Your task to perform on an android device: star an email in the gmail app Image 0: 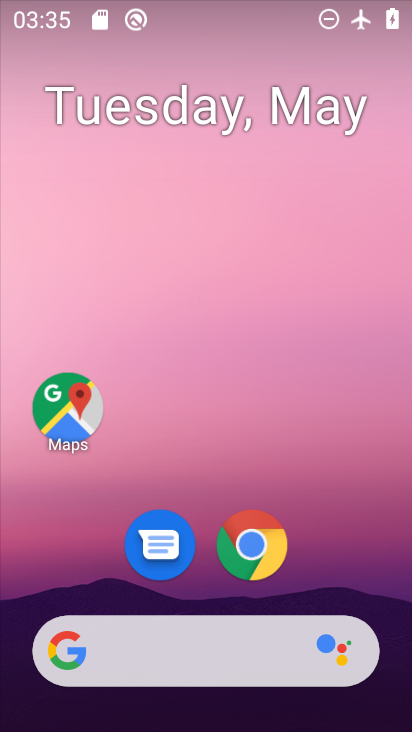
Step 0: drag from (395, 643) to (298, 38)
Your task to perform on an android device: star an email in the gmail app Image 1: 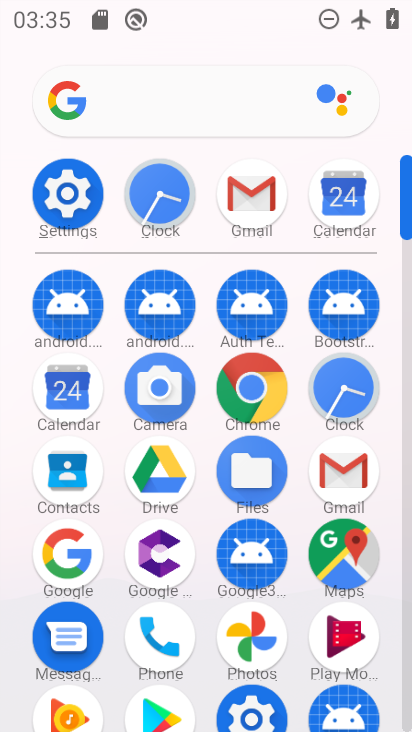
Step 1: click (408, 690)
Your task to perform on an android device: star an email in the gmail app Image 2: 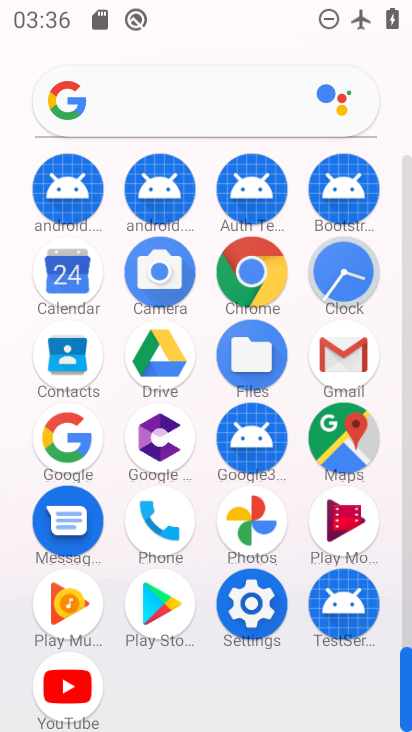
Step 2: click (342, 352)
Your task to perform on an android device: star an email in the gmail app Image 3: 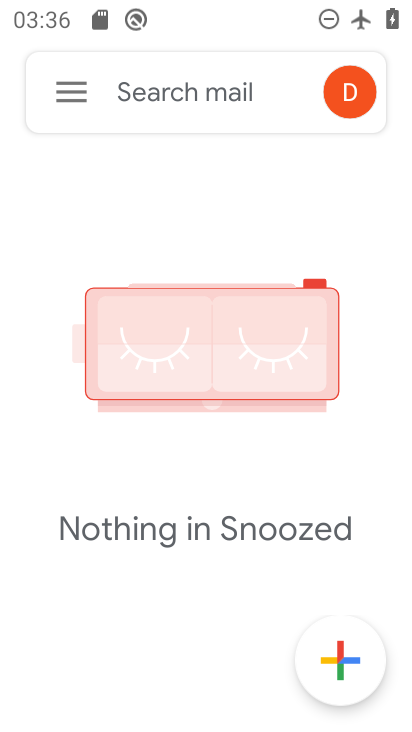
Step 3: click (70, 95)
Your task to perform on an android device: star an email in the gmail app Image 4: 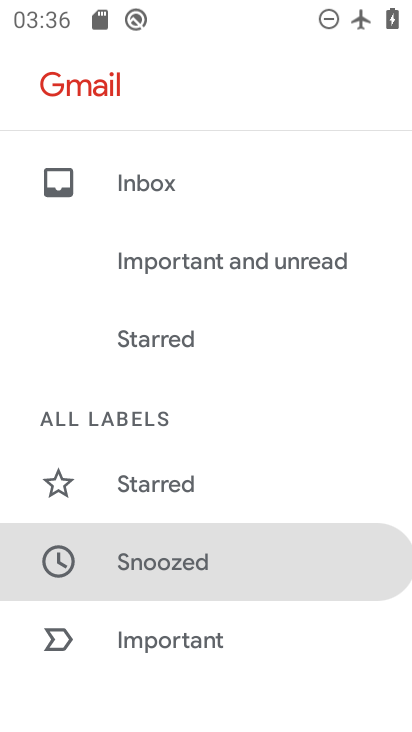
Step 4: drag from (284, 523) to (271, 144)
Your task to perform on an android device: star an email in the gmail app Image 5: 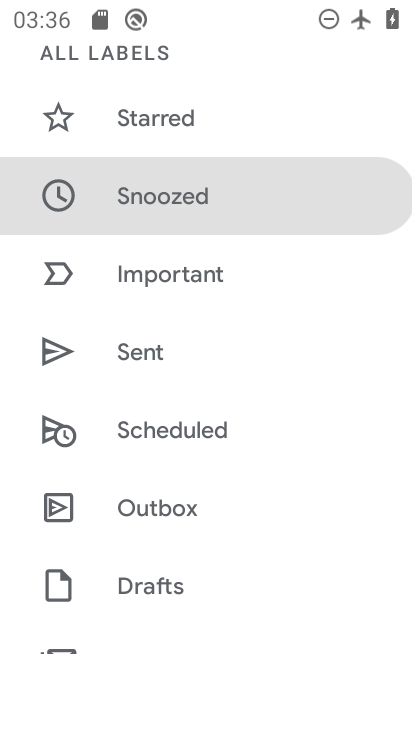
Step 5: drag from (281, 578) to (263, 233)
Your task to perform on an android device: star an email in the gmail app Image 6: 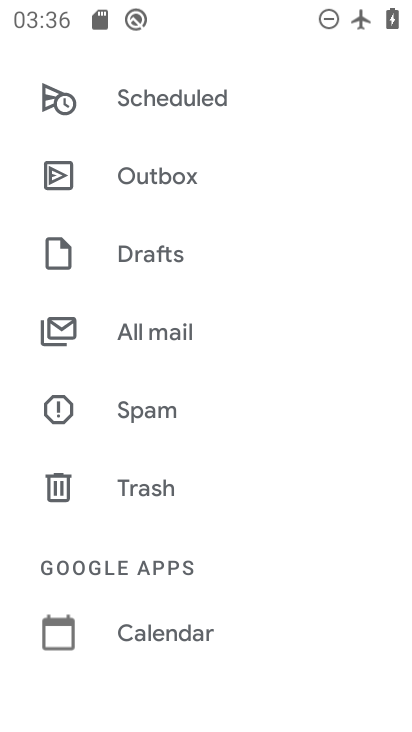
Step 6: click (161, 332)
Your task to perform on an android device: star an email in the gmail app Image 7: 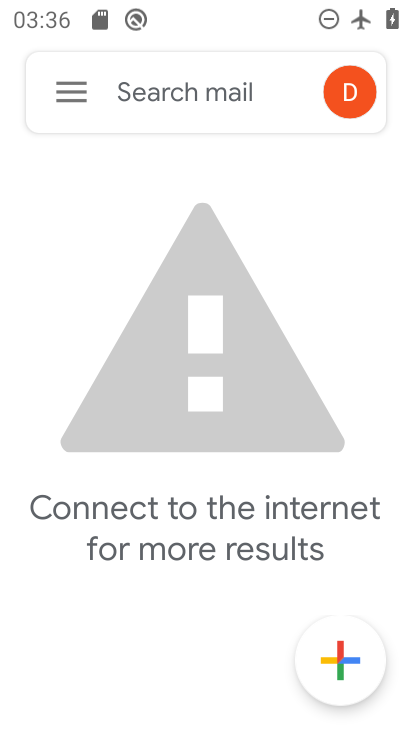
Step 7: task complete